Your task to perform on an android device: turn off wifi Image 0: 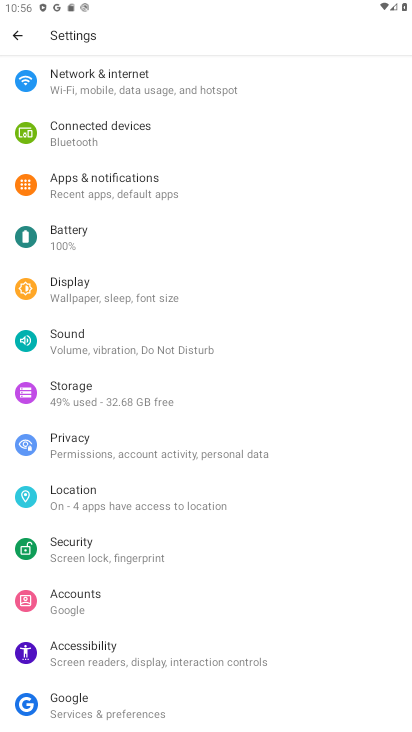
Step 0: click (189, 86)
Your task to perform on an android device: turn off wifi Image 1: 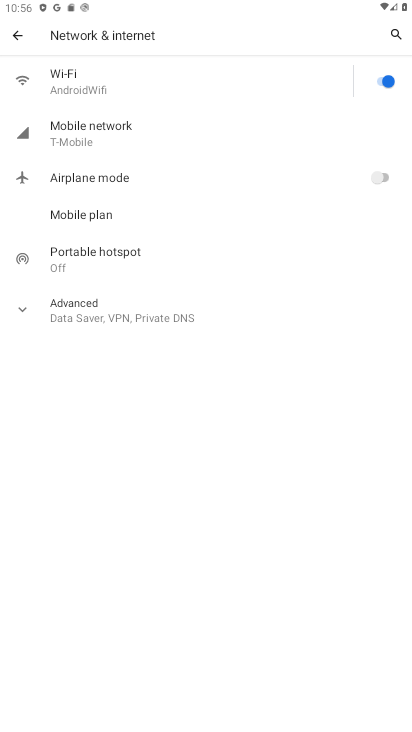
Step 1: click (389, 95)
Your task to perform on an android device: turn off wifi Image 2: 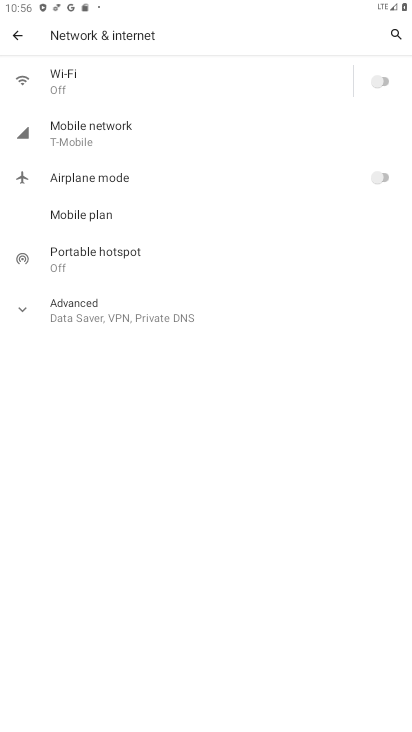
Step 2: task complete